Your task to perform on an android device: Go to display settings Image 0: 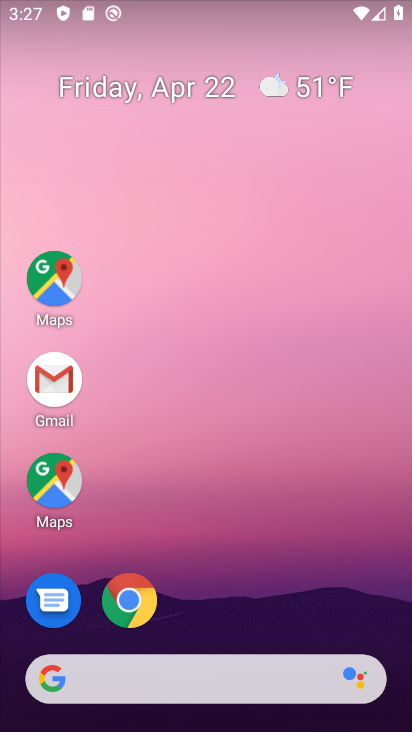
Step 0: drag from (212, 656) to (151, 227)
Your task to perform on an android device: Go to display settings Image 1: 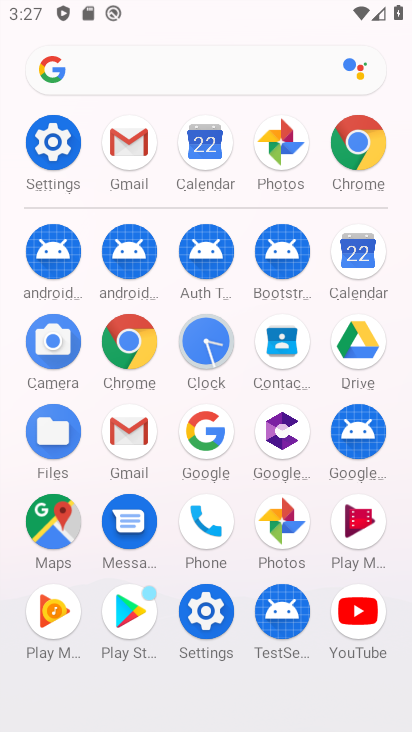
Step 1: click (209, 610)
Your task to perform on an android device: Go to display settings Image 2: 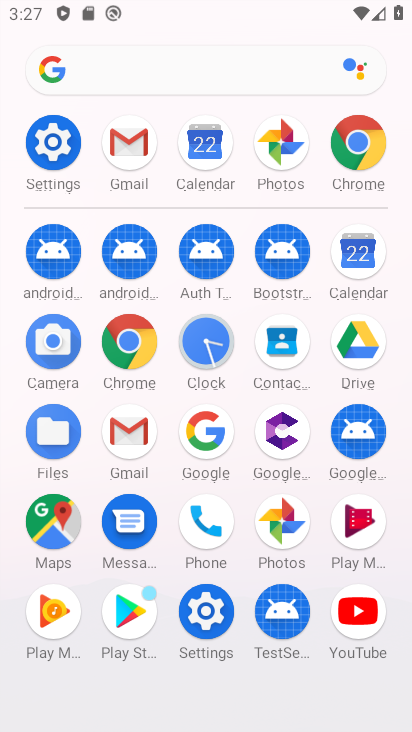
Step 2: click (209, 610)
Your task to perform on an android device: Go to display settings Image 3: 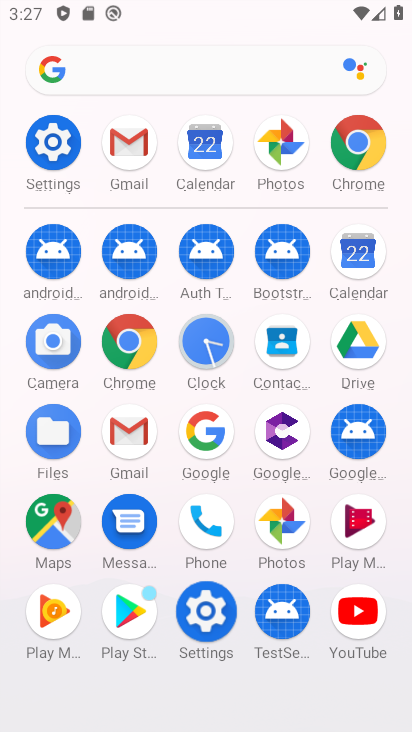
Step 3: click (209, 610)
Your task to perform on an android device: Go to display settings Image 4: 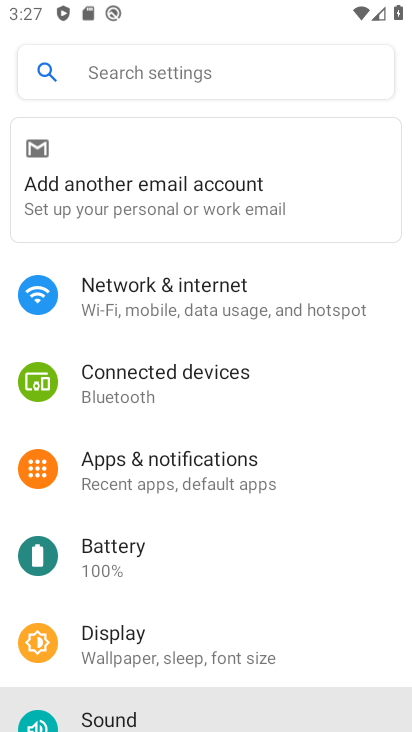
Step 4: click (209, 610)
Your task to perform on an android device: Go to display settings Image 5: 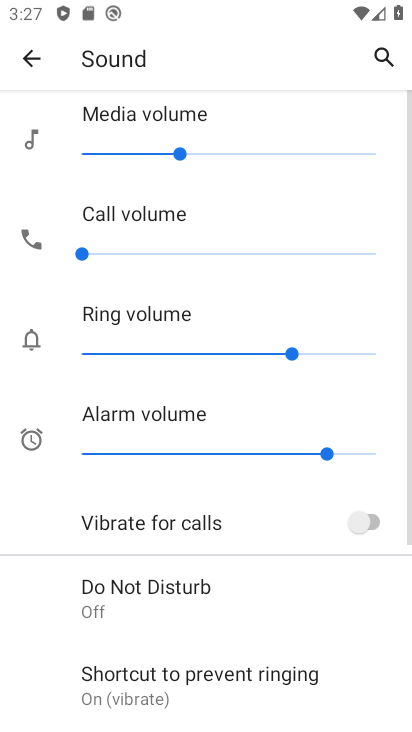
Step 5: click (24, 59)
Your task to perform on an android device: Go to display settings Image 6: 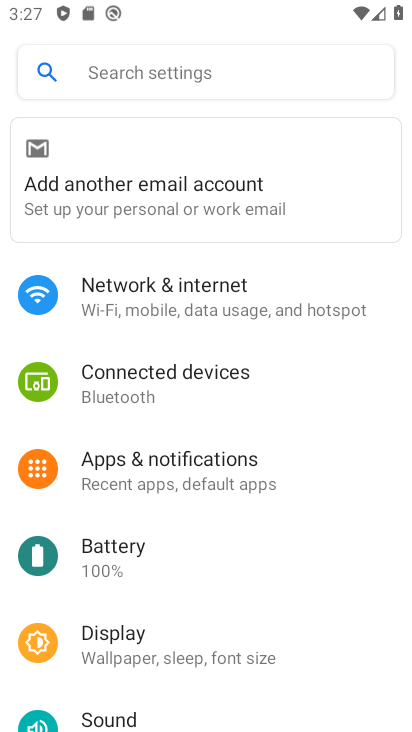
Step 6: click (125, 639)
Your task to perform on an android device: Go to display settings Image 7: 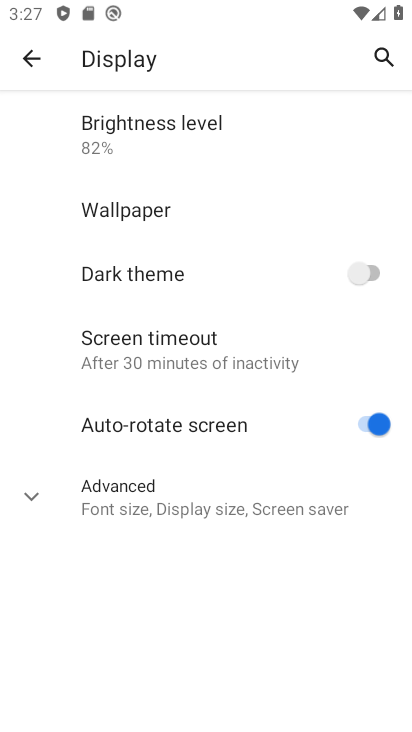
Step 7: task complete